Your task to perform on an android device: Is it going to rain tomorrow? Image 0: 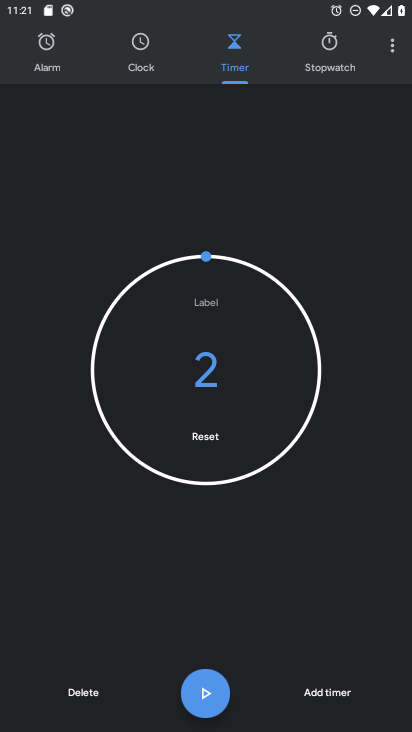
Step 0: press home button
Your task to perform on an android device: Is it going to rain tomorrow? Image 1: 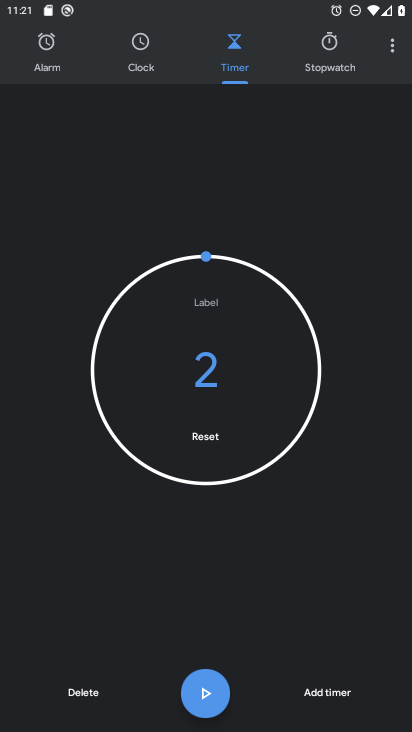
Step 1: press home button
Your task to perform on an android device: Is it going to rain tomorrow? Image 2: 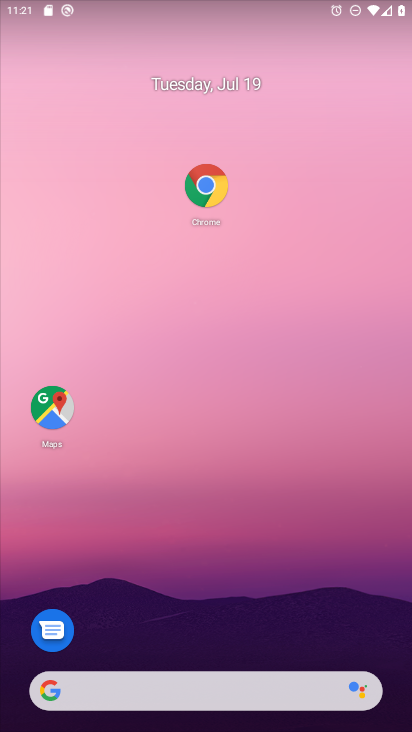
Step 2: drag from (296, 660) to (284, 182)
Your task to perform on an android device: Is it going to rain tomorrow? Image 3: 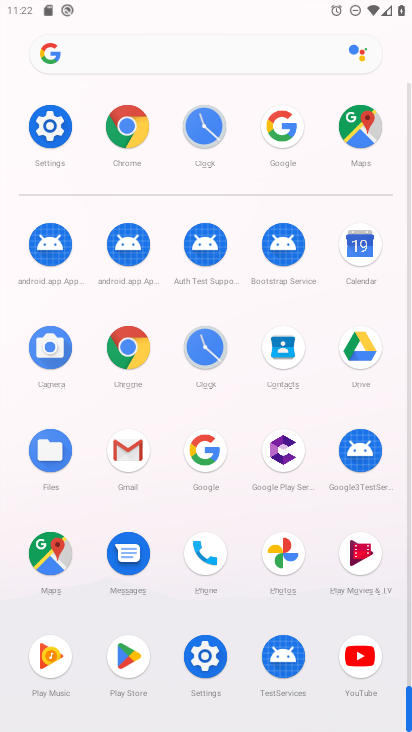
Step 3: click (211, 465)
Your task to perform on an android device: Is it going to rain tomorrow? Image 4: 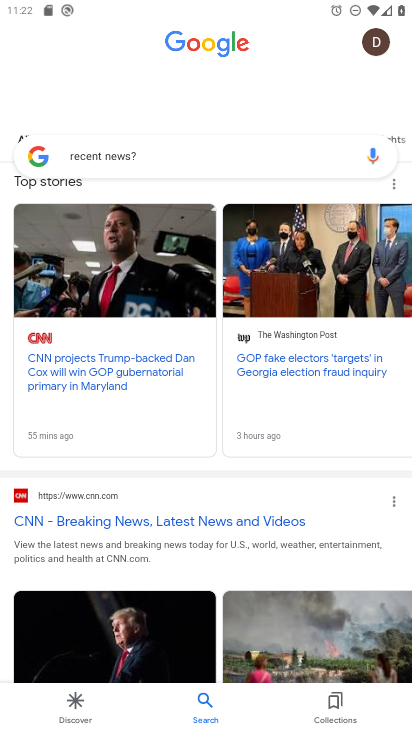
Step 4: click (200, 150)
Your task to perform on an android device: Is it going to rain tomorrow? Image 5: 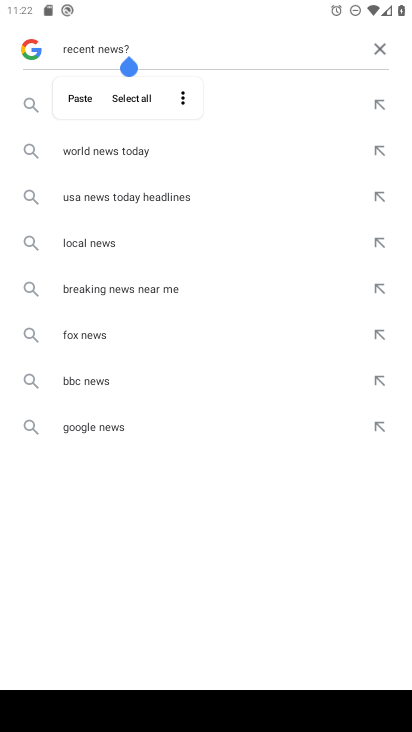
Step 5: click (385, 46)
Your task to perform on an android device: Is it going to rain tomorrow? Image 6: 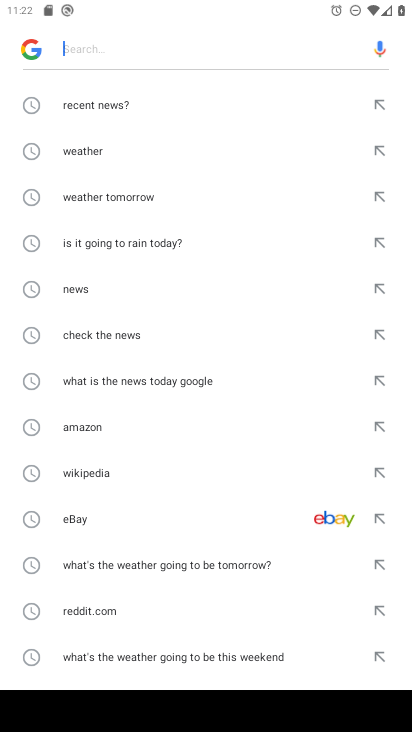
Step 6: click (81, 163)
Your task to perform on an android device: Is it going to rain tomorrow? Image 7: 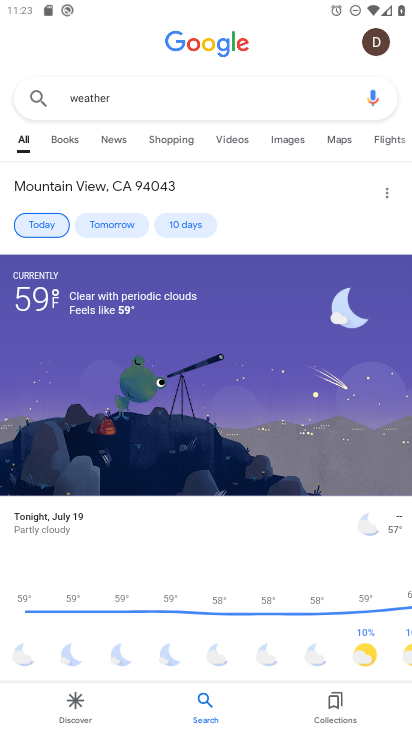
Step 7: click (113, 225)
Your task to perform on an android device: Is it going to rain tomorrow? Image 8: 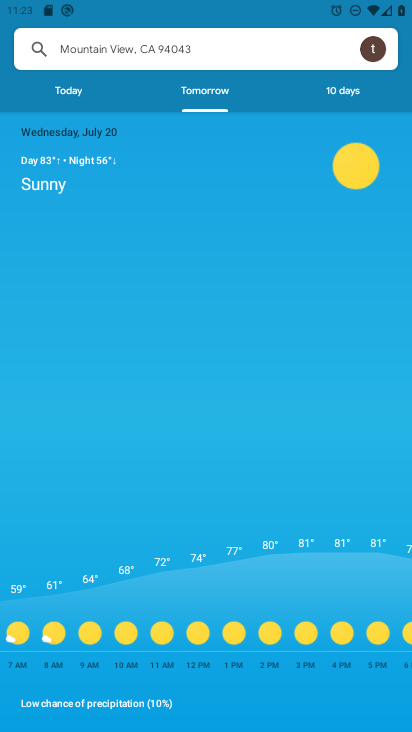
Step 8: task complete